Your task to perform on an android device: check data usage Image 0: 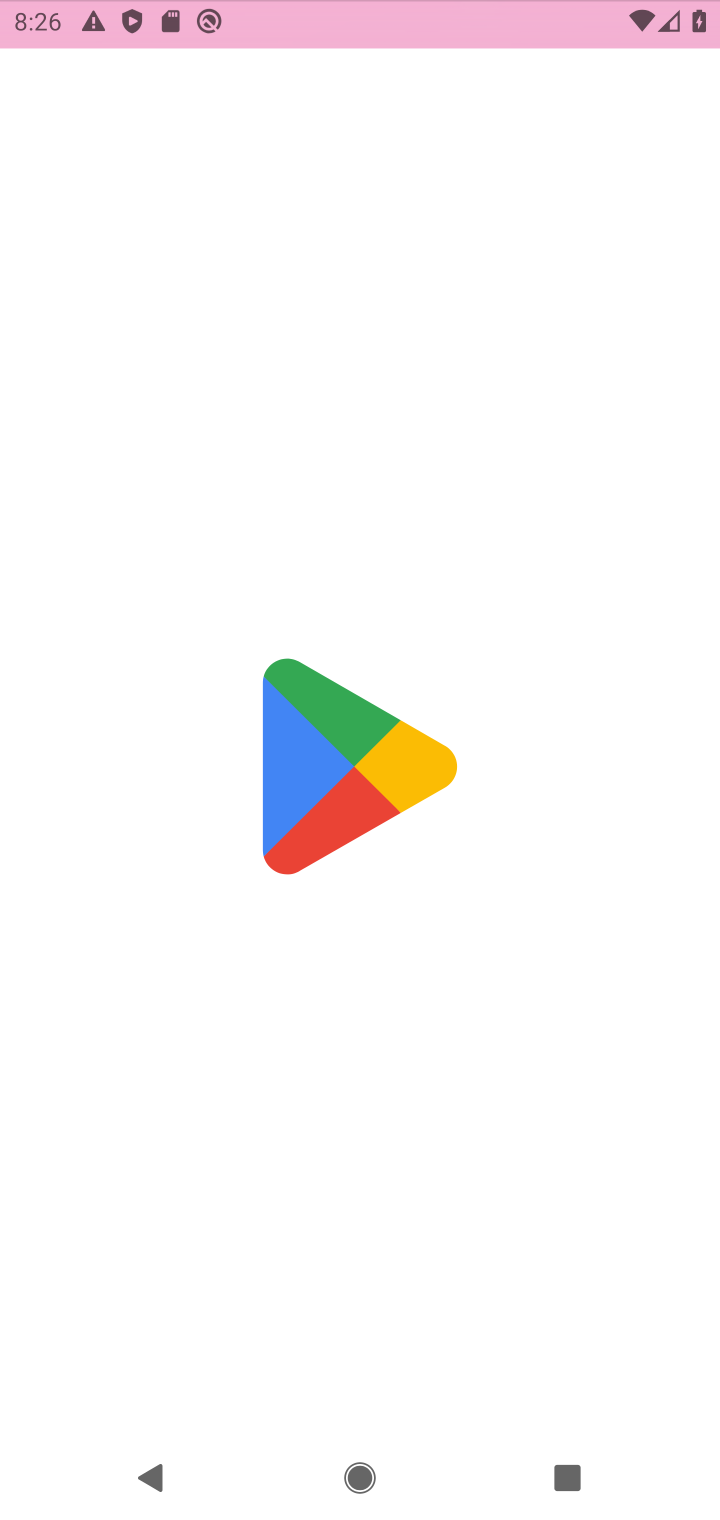
Step 0: press home button
Your task to perform on an android device: check data usage Image 1: 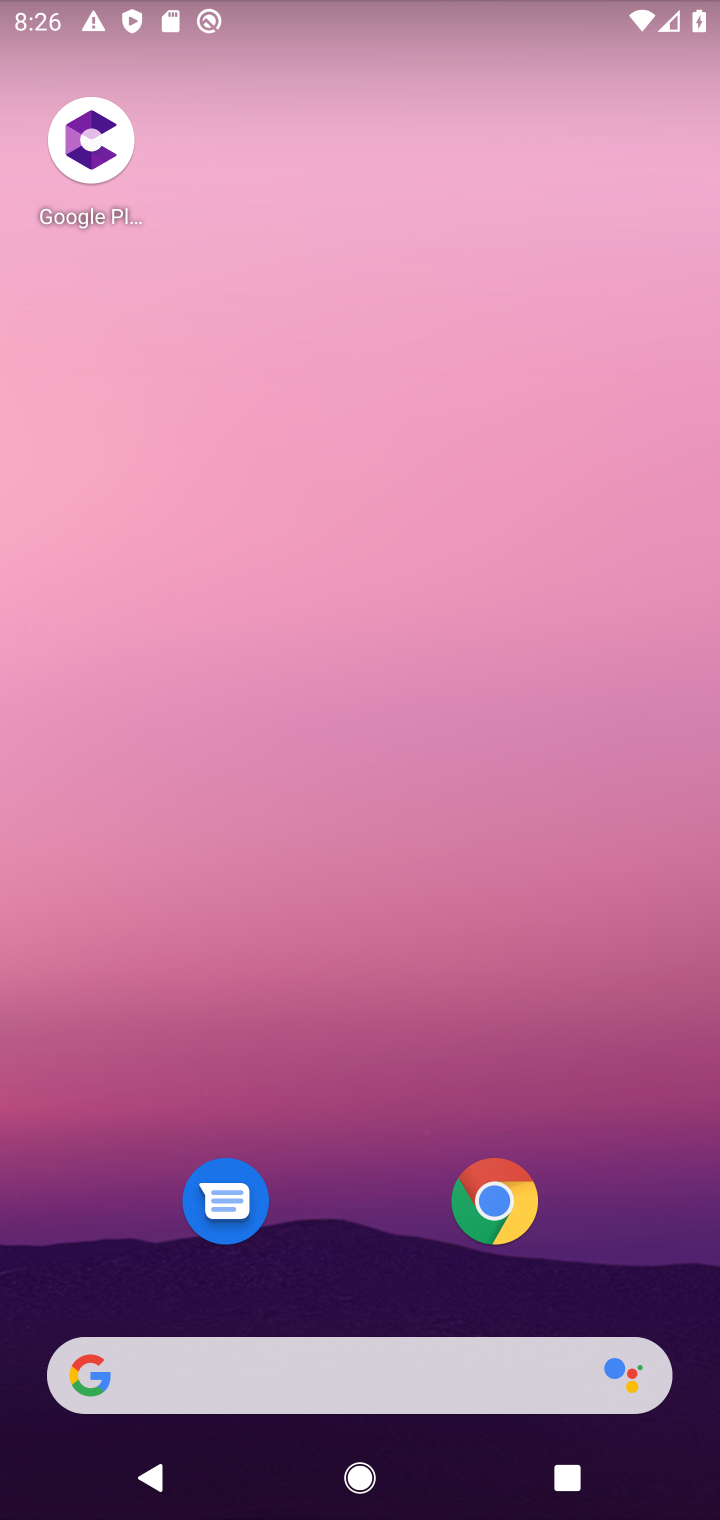
Step 1: drag from (614, 1075) to (664, 172)
Your task to perform on an android device: check data usage Image 2: 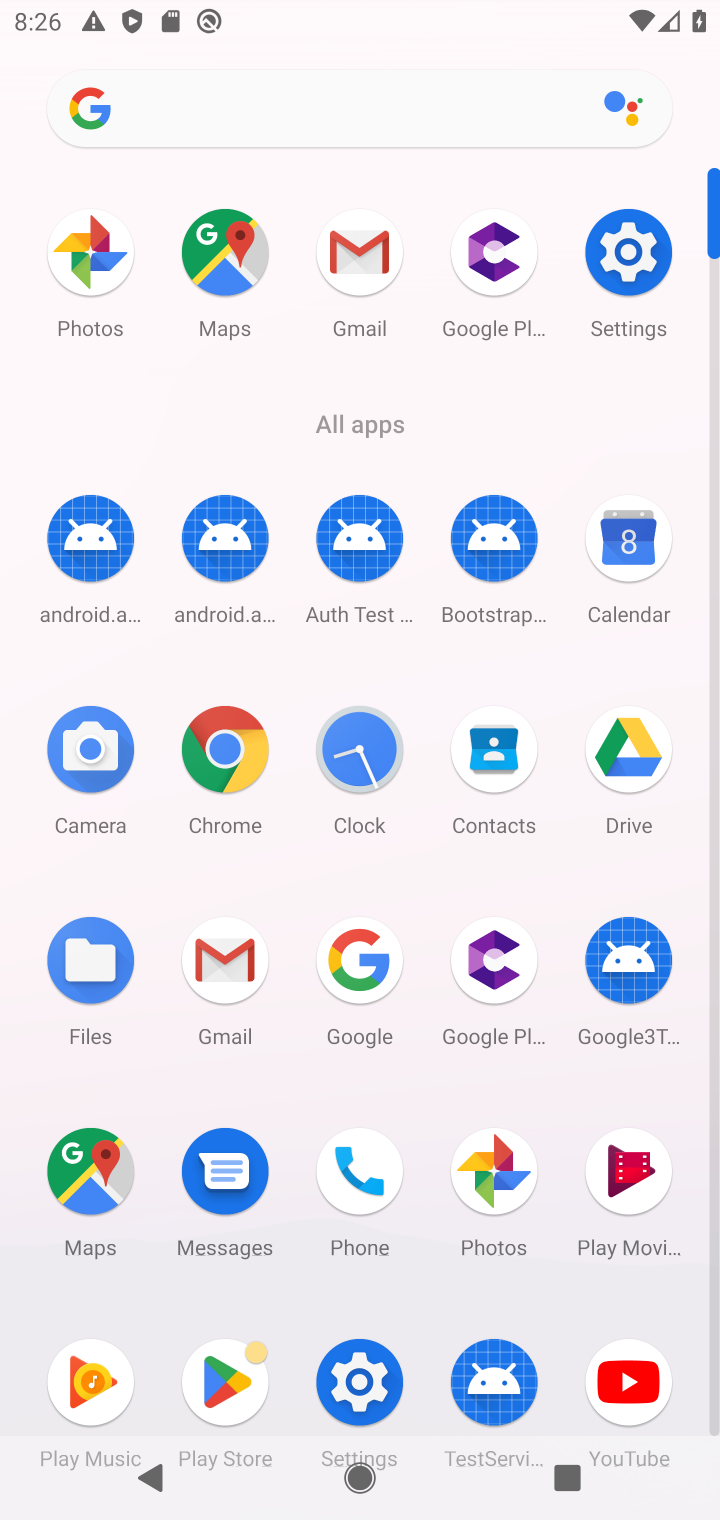
Step 2: click (628, 268)
Your task to perform on an android device: check data usage Image 3: 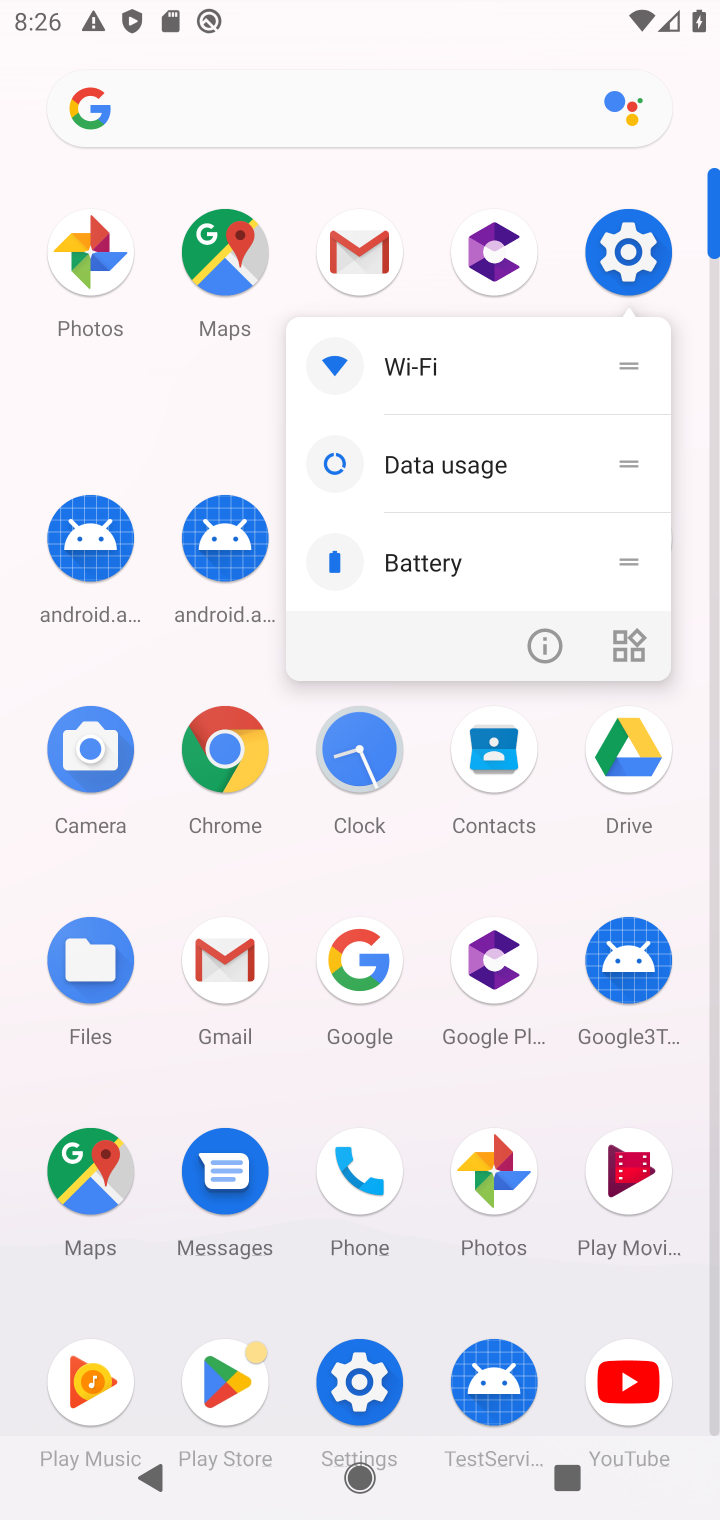
Step 3: click (628, 268)
Your task to perform on an android device: check data usage Image 4: 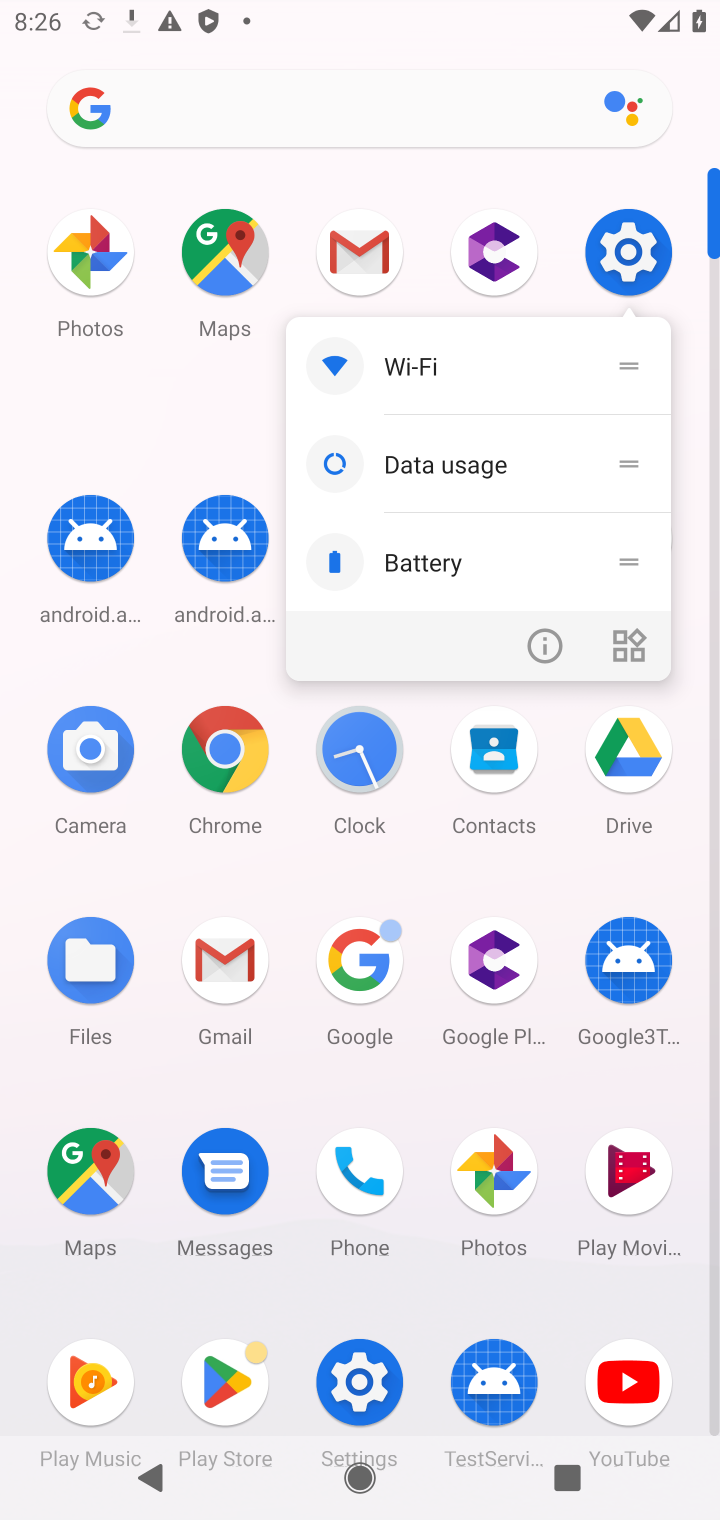
Step 4: click (639, 258)
Your task to perform on an android device: check data usage Image 5: 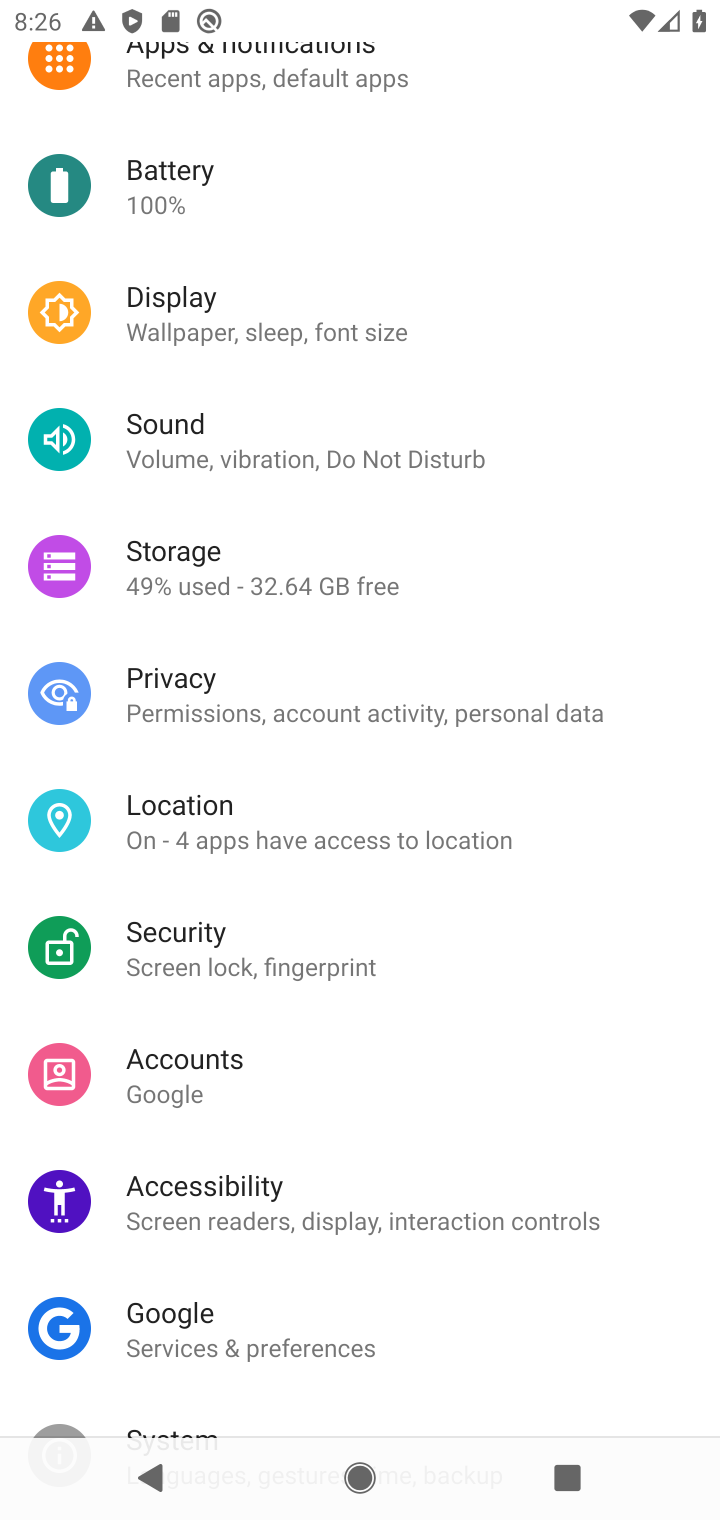
Step 5: drag from (645, 448) to (656, 661)
Your task to perform on an android device: check data usage Image 6: 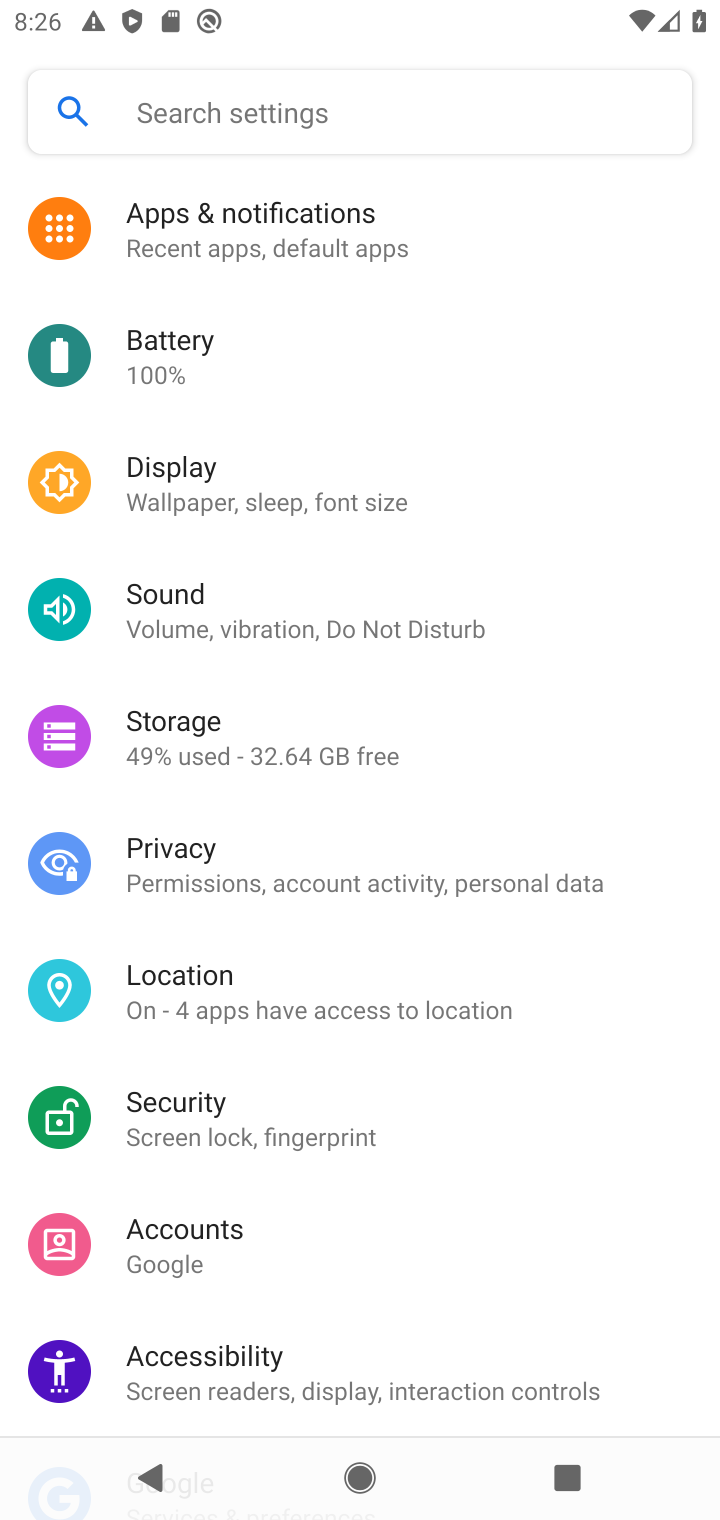
Step 6: drag from (634, 341) to (622, 525)
Your task to perform on an android device: check data usage Image 7: 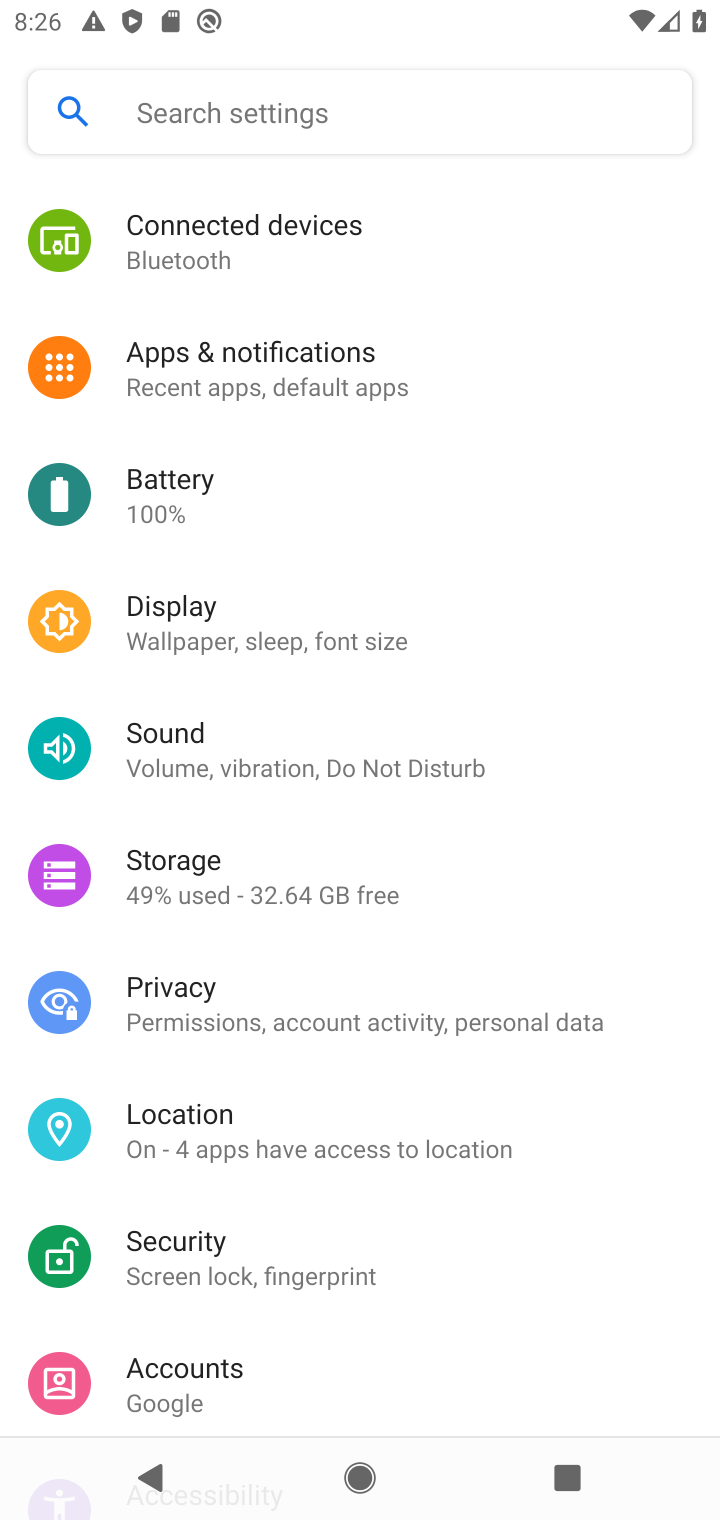
Step 7: drag from (615, 355) to (619, 537)
Your task to perform on an android device: check data usage Image 8: 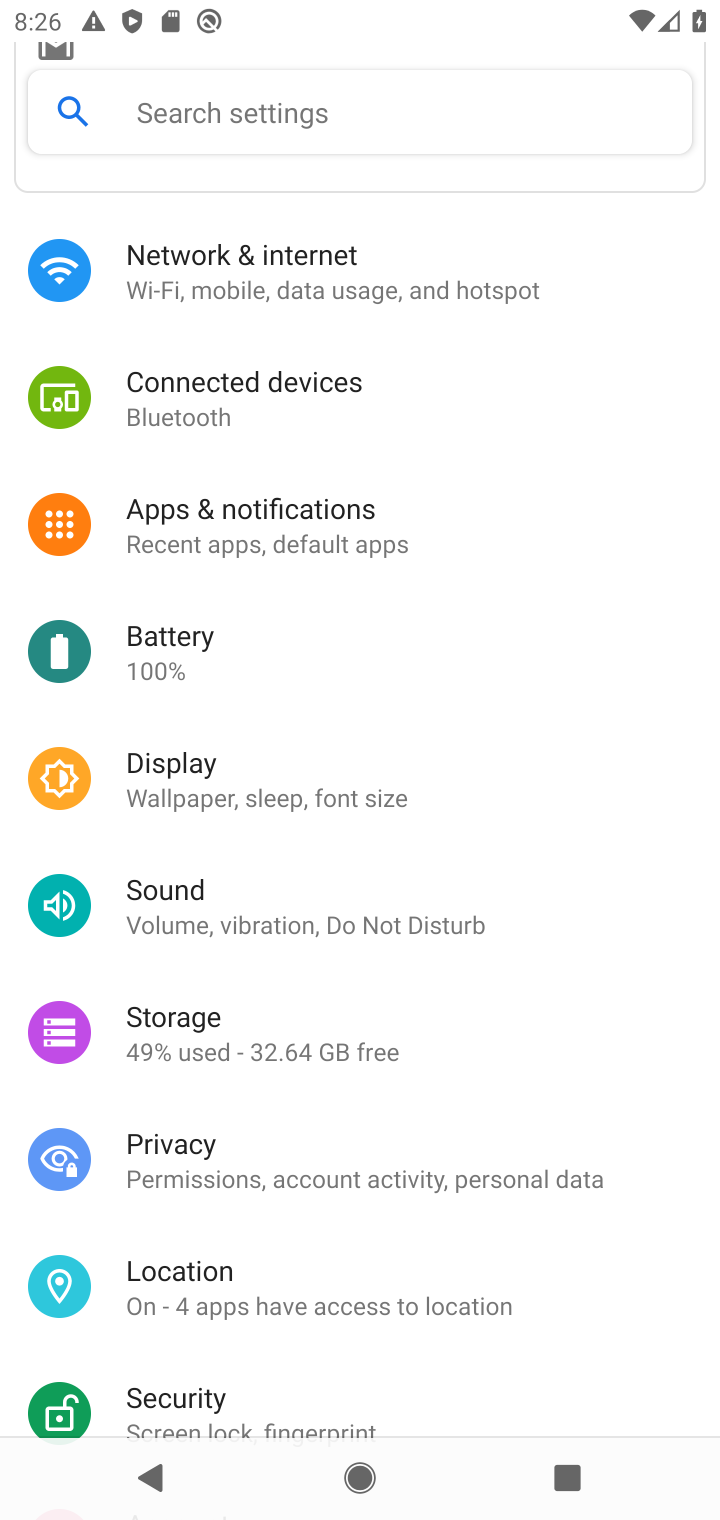
Step 8: drag from (639, 276) to (618, 813)
Your task to perform on an android device: check data usage Image 9: 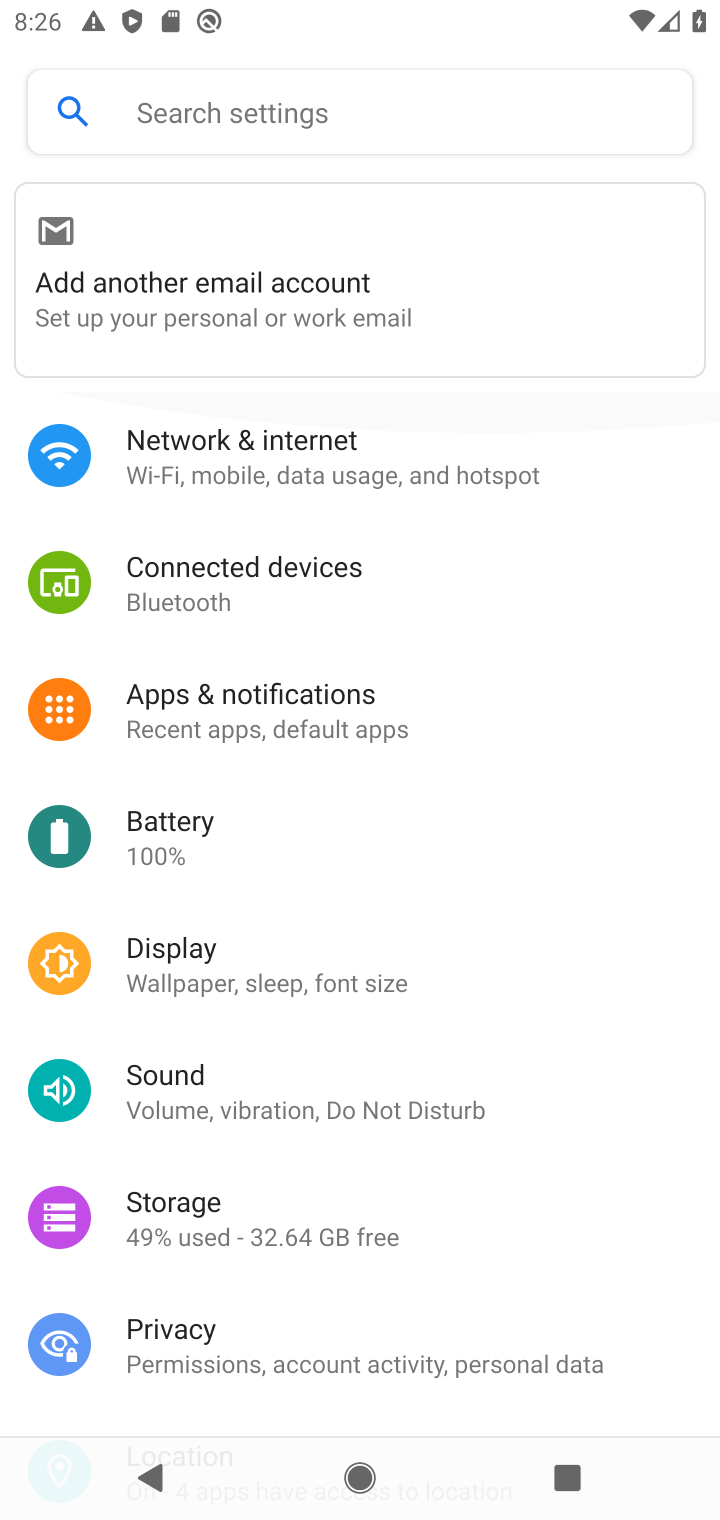
Step 9: click (486, 462)
Your task to perform on an android device: check data usage Image 10: 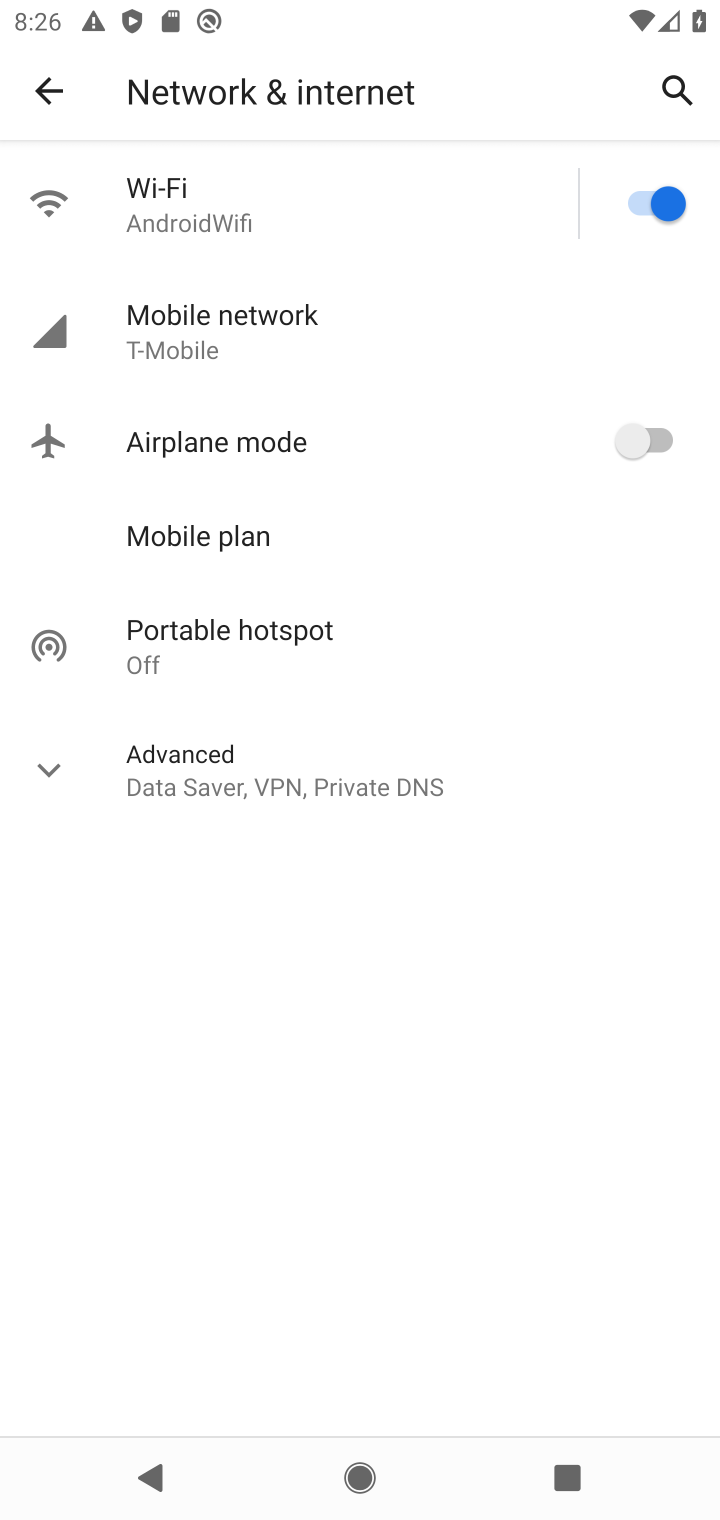
Step 10: click (251, 309)
Your task to perform on an android device: check data usage Image 11: 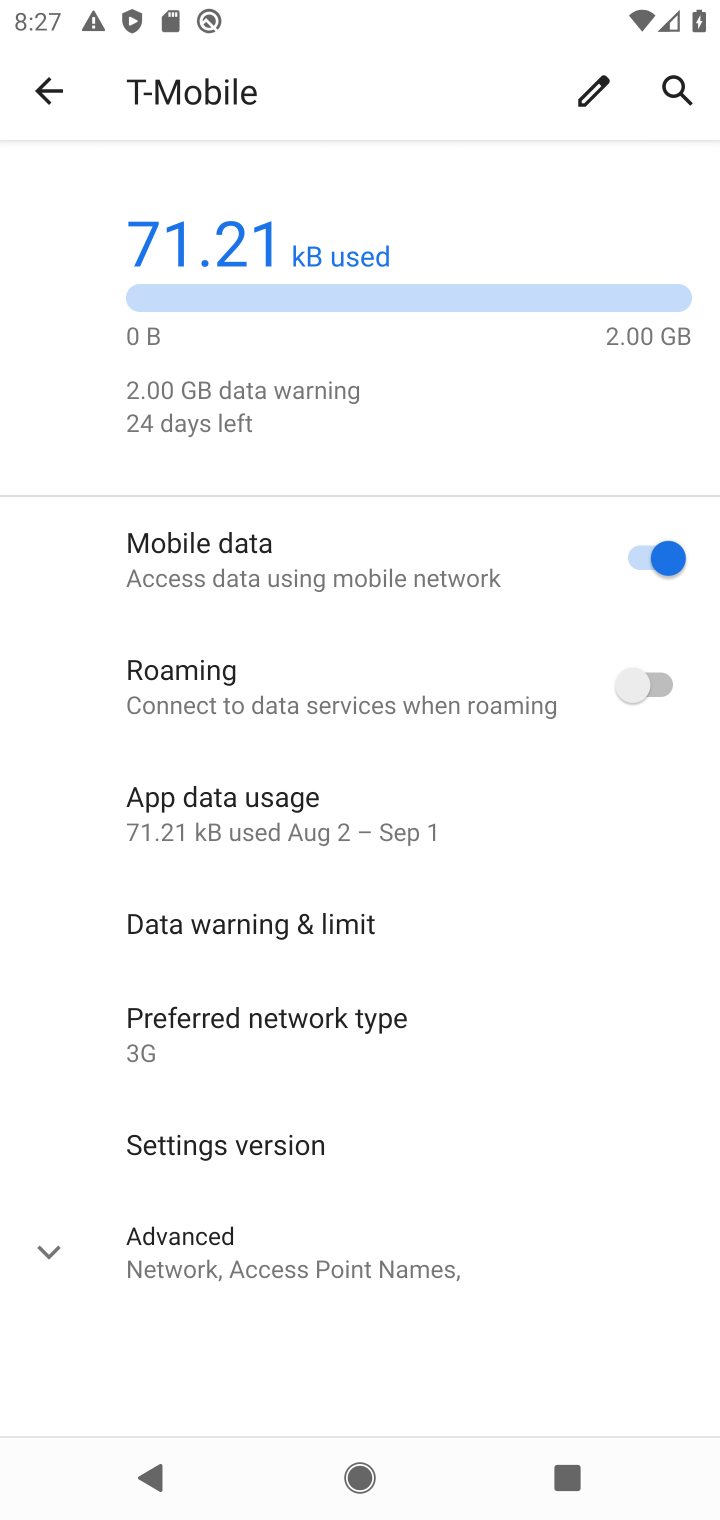
Step 11: click (327, 813)
Your task to perform on an android device: check data usage Image 12: 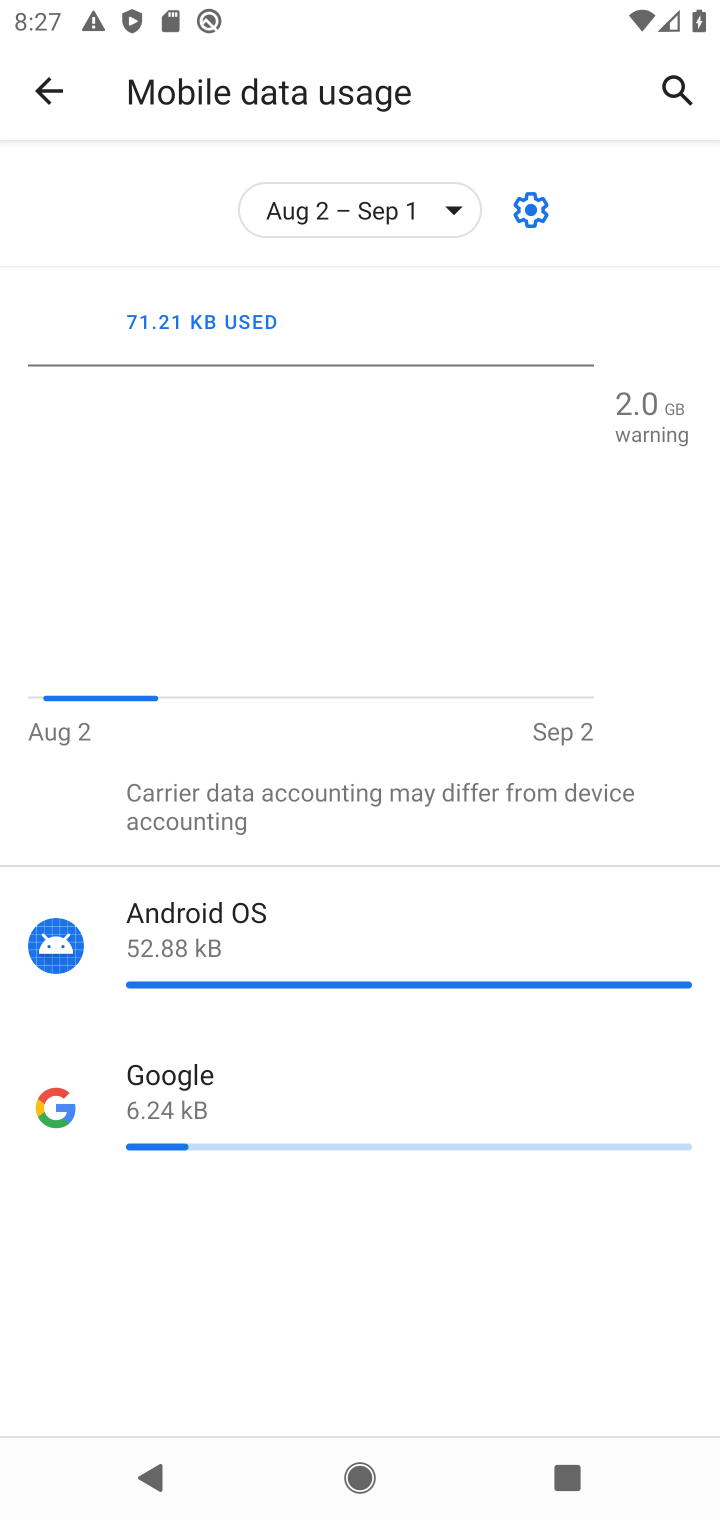
Step 12: task complete